Your task to perform on an android device: add a contact Image 0: 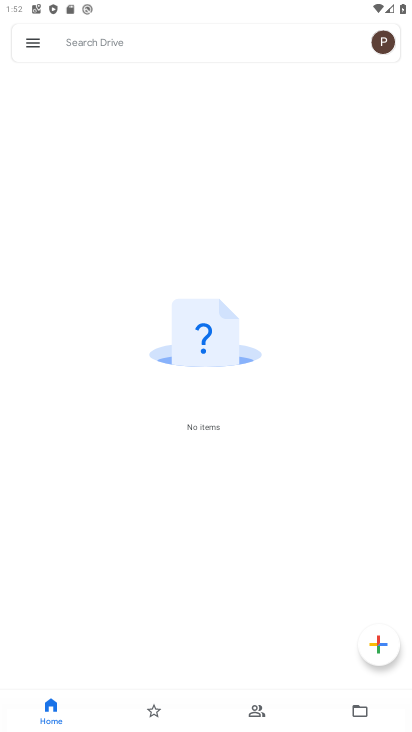
Step 0: press home button
Your task to perform on an android device: add a contact Image 1: 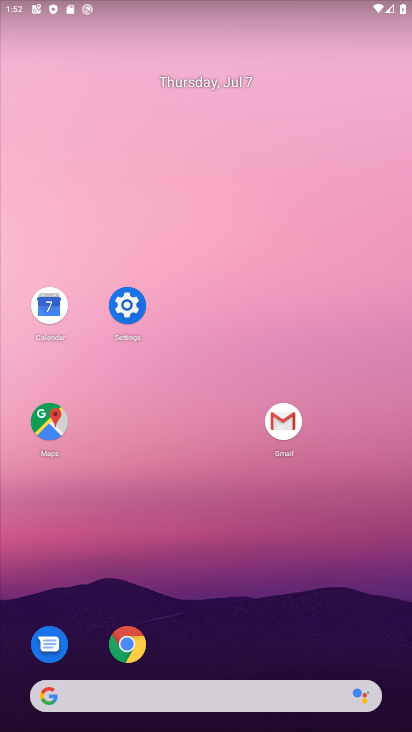
Step 1: drag from (392, 648) to (265, 145)
Your task to perform on an android device: add a contact Image 2: 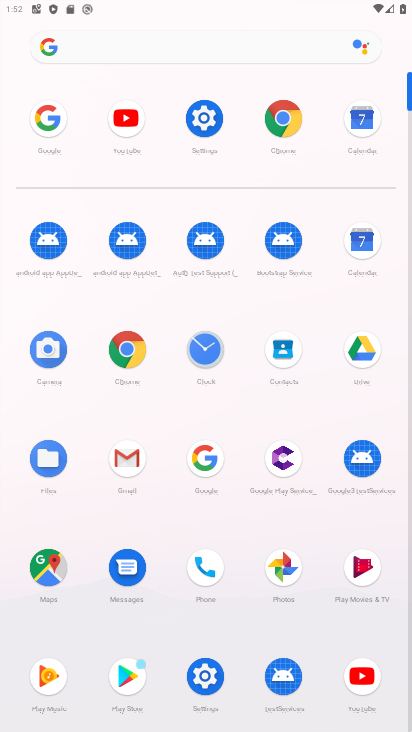
Step 2: click (283, 353)
Your task to perform on an android device: add a contact Image 3: 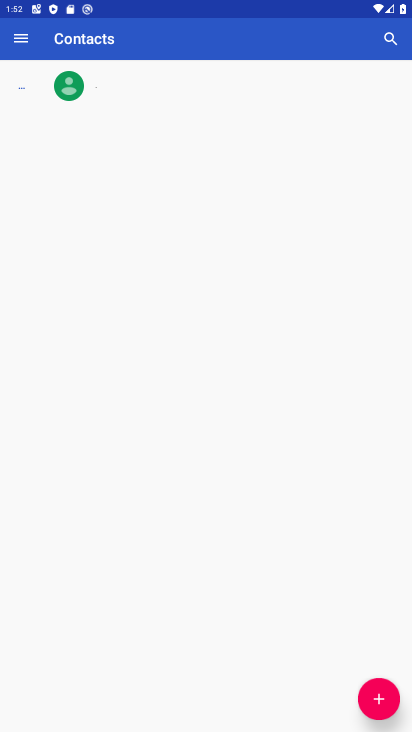
Step 3: click (381, 705)
Your task to perform on an android device: add a contact Image 4: 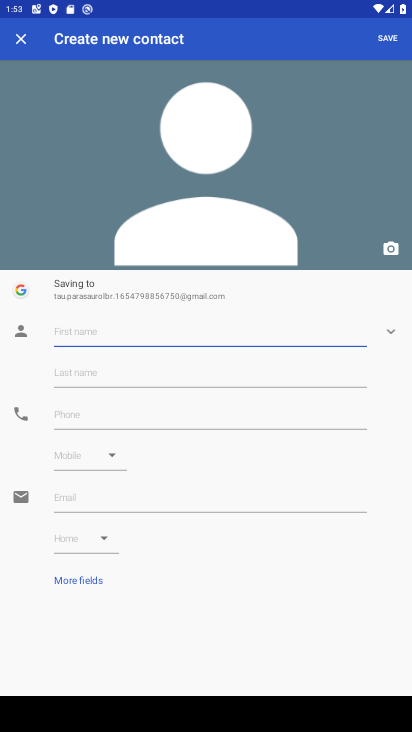
Step 4: type "hzdzdhh"
Your task to perform on an android device: add a contact Image 5: 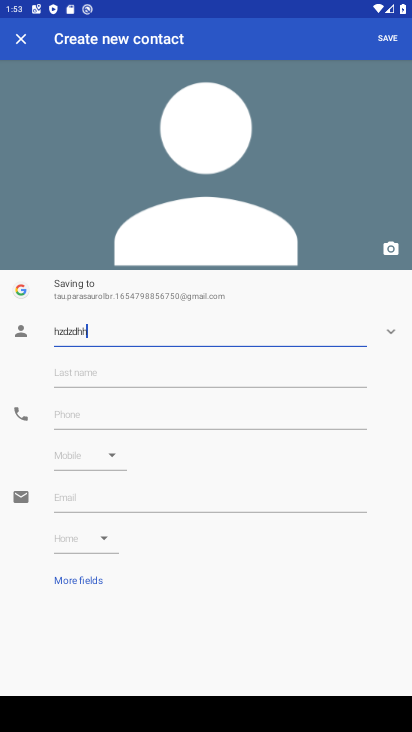
Step 5: click (87, 411)
Your task to perform on an android device: add a contact Image 6: 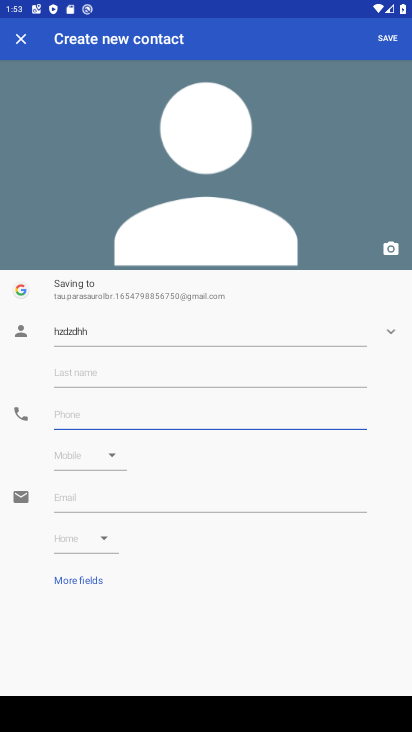
Step 6: type "setytjfm"
Your task to perform on an android device: add a contact Image 7: 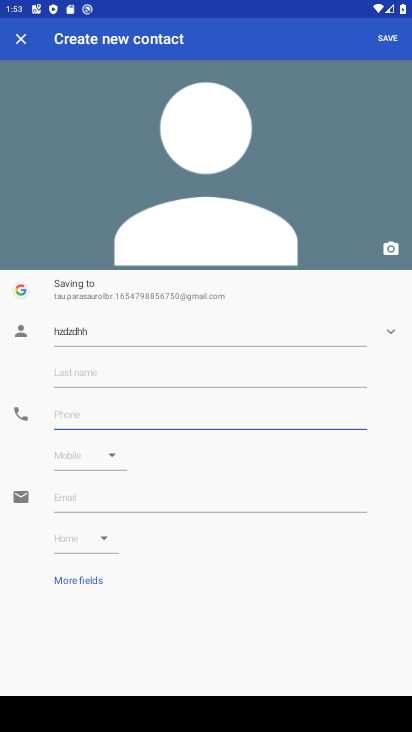
Step 7: click (75, 458)
Your task to perform on an android device: add a contact Image 8: 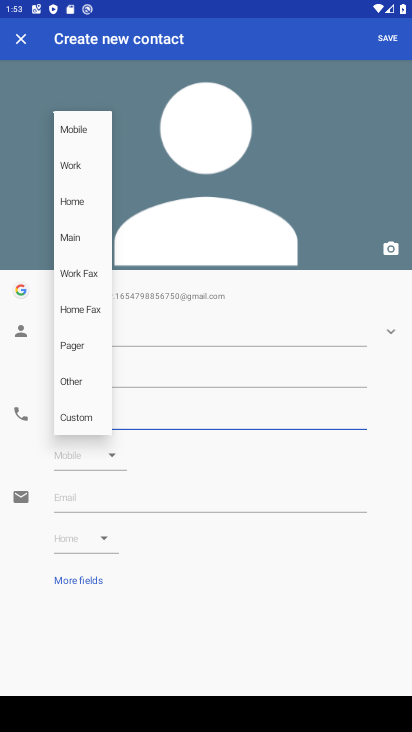
Step 8: click (202, 477)
Your task to perform on an android device: add a contact Image 9: 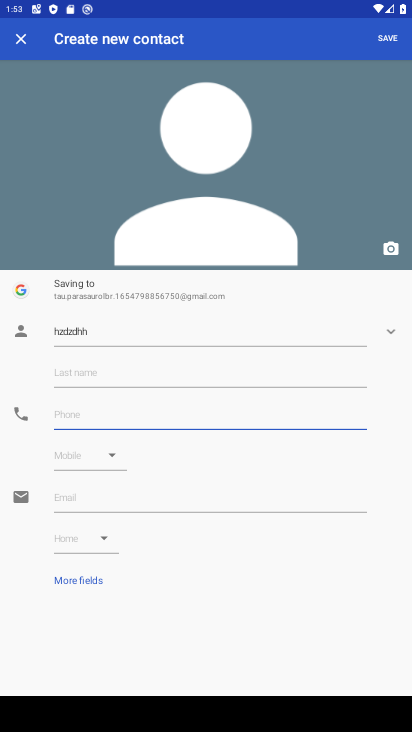
Step 9: click (121, 386)
Your task to perform on an android device: add a contact Image 10: 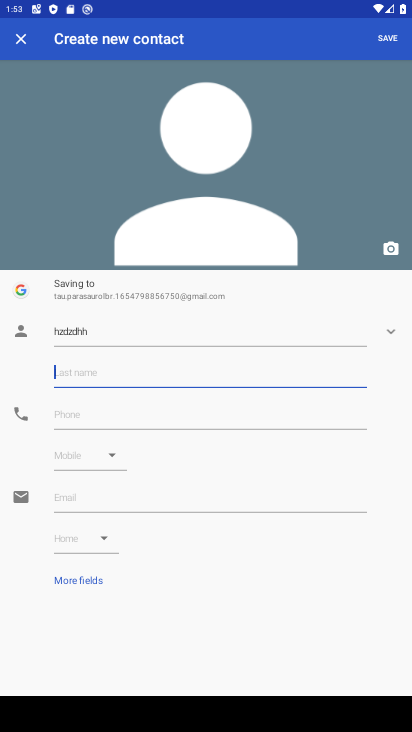
Step 10: type "hdhsjj"
Your task to perform on an android device: add a contact Image 11: 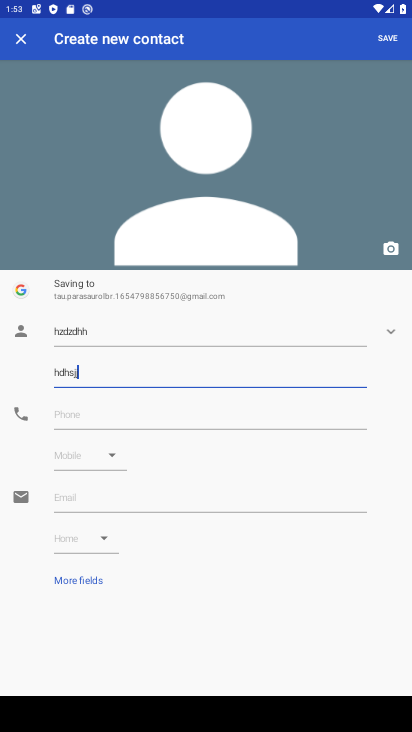
Step 11: click (67, 412)
Your task to perform on an android device: add a contact Image 12: 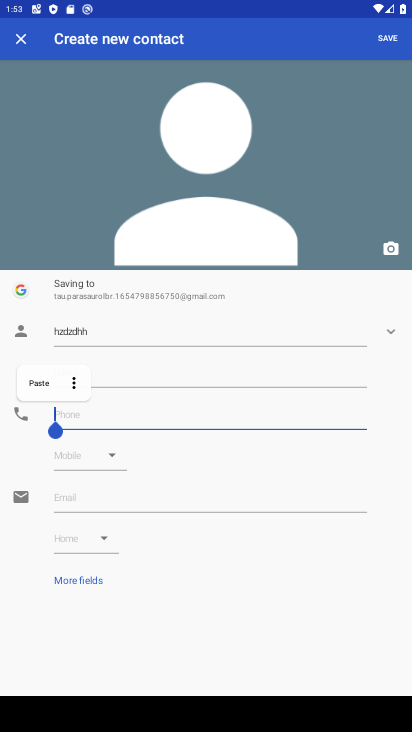
Step 12: click (75, 412)
Your task to perform on an android device: add a contact Image 13: 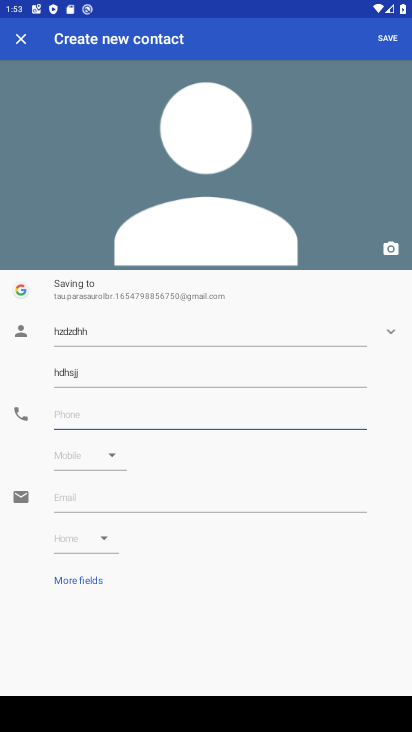
Step 13: type "45655665656565"
Your task to perform on an android device: add a contact Image 14: 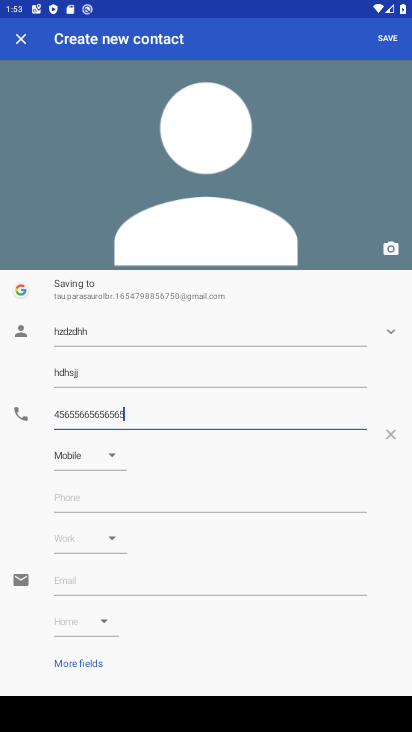
Step 14: click (386, 36)
Your task to perform on an android device: add a contact Image 15: 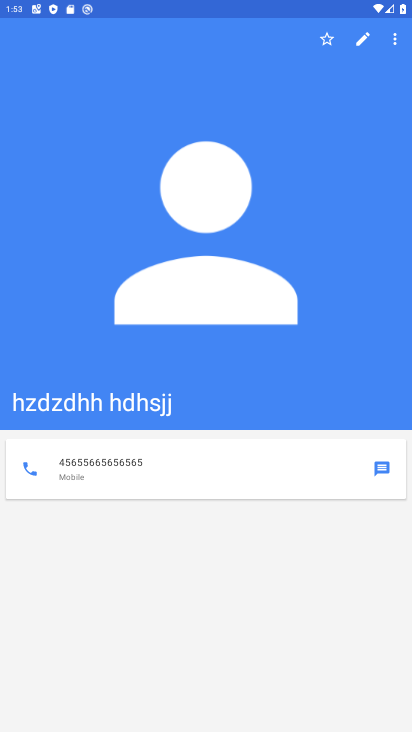
Step 15: task complete